Your task to perform on an android device: star an email in the gmail app Image 0: 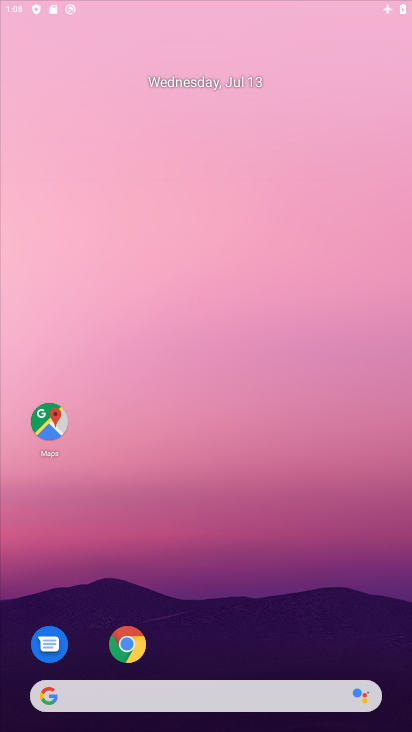
Step 0: press home button
Your task to perform on an android device: star an email in the gmail app Image 1: 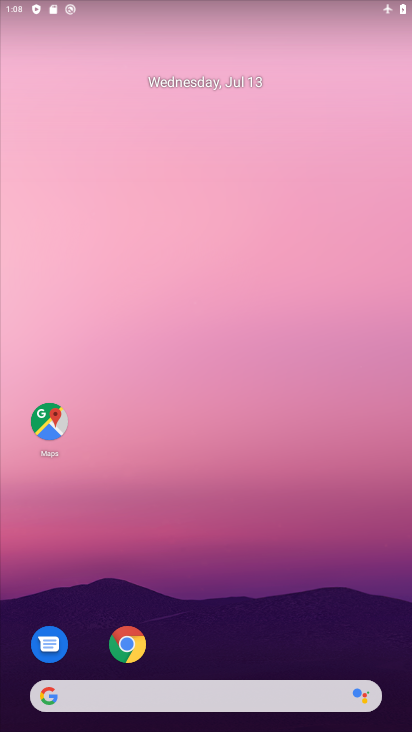
Step 1: press home button
Your task to perform on an android device: star an email in the gmail app Image 2: 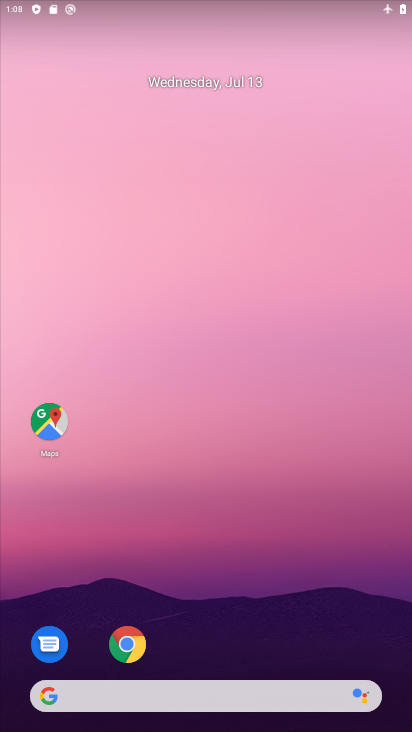
Step 2: drag from (296, 593) to (236, 17)
Your task to perform on an android device: star an email in the gmail app Image 3: 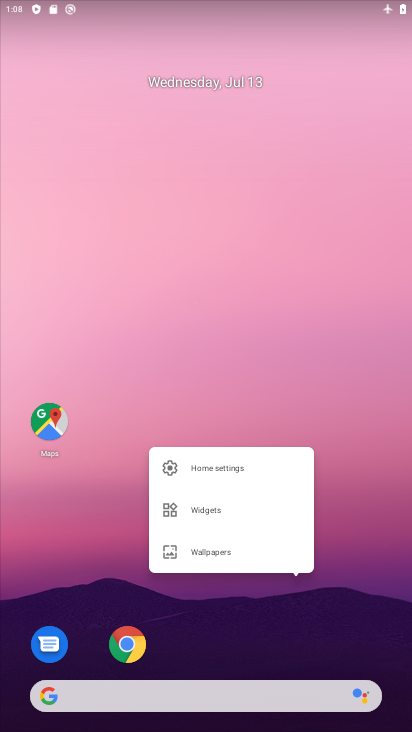
Step 3: drag from (94, 557) to (151, 16)
Your task to perform on an android device: star an email in the gmail app Image 4: 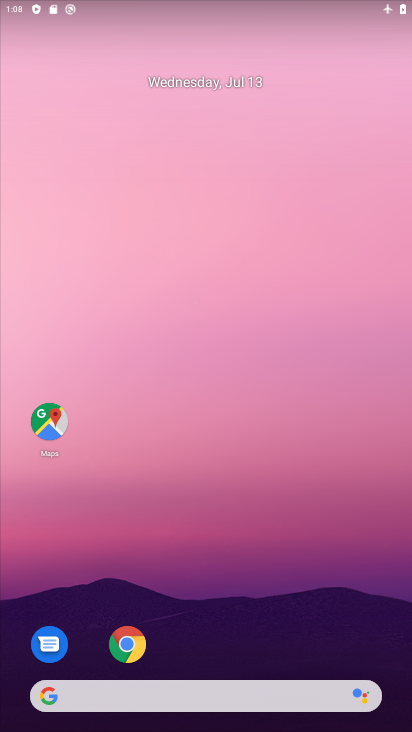
Step 4: drag from (258, 501) to (205, 9)
Your task to perform on an android device: star an email in the gmail app Image 5: 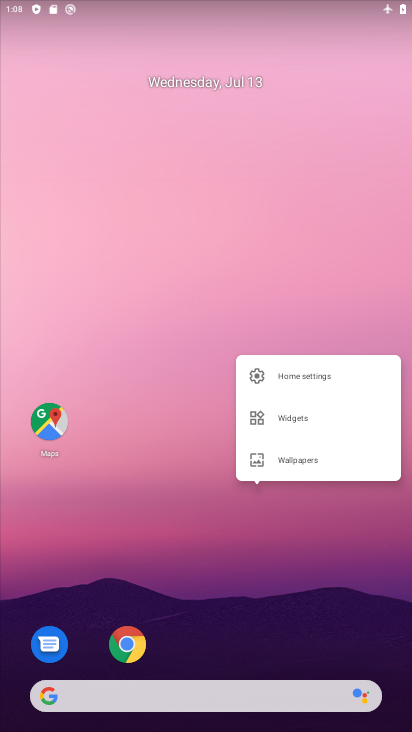
Step 5: drag from (196, 537) to (168, 26)
Your task to perform on an android device: star an email in the gmail app Image 6: 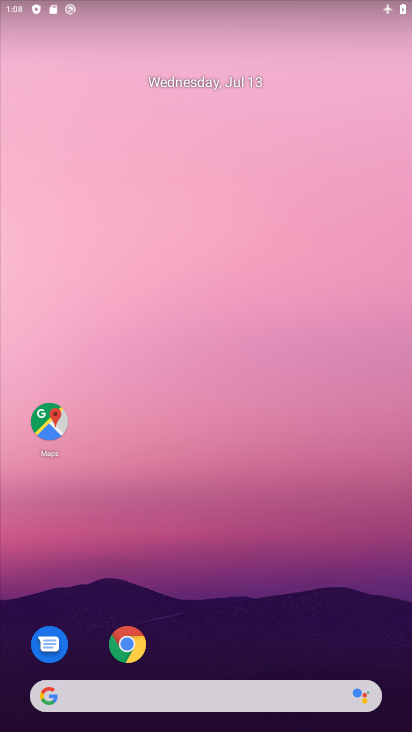
Step 6: drag from (218, 639) to (192, 2)
Your task to perform on an android device: star an email in the gmail app Image 7: 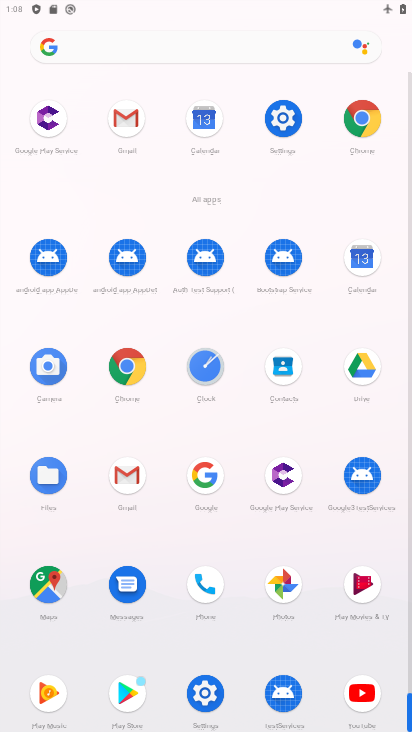
Step 7: drag from (205, 368) to (390, 335)
Your task to perform on an android device: star an email in the gmail app Image 8: 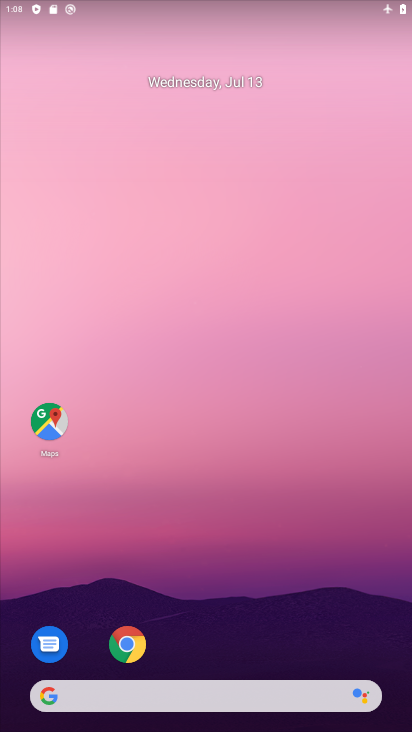
Step 8: click (126, 115)
Your task to perform on an android device: star an email in the gmail app Image 9: 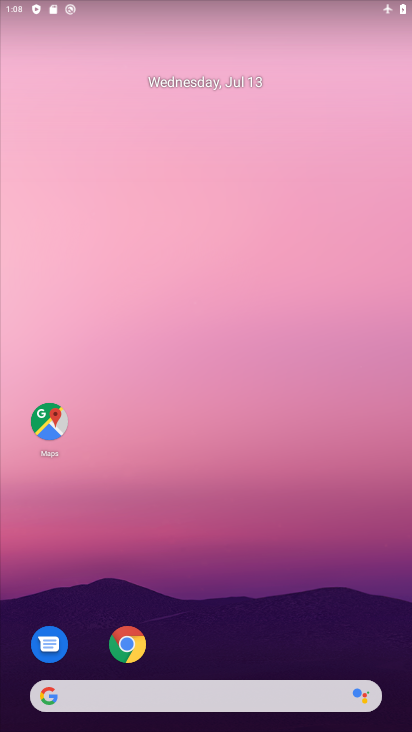
Step 9: drag from (215, 571) to (212, 0)
Your task to perform on an android device: star an email in the gmail app Image 10: 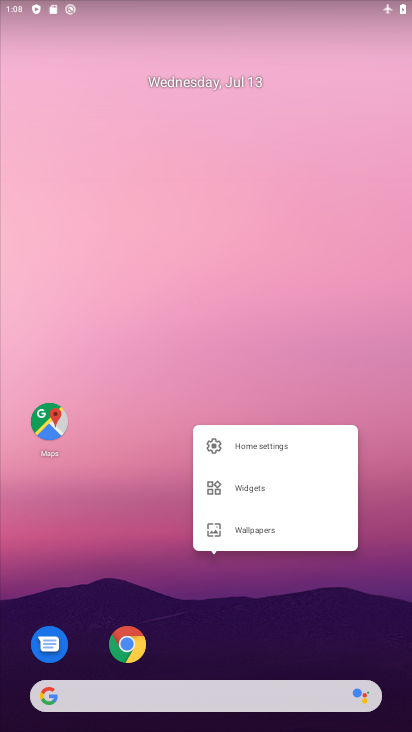
Step 10: drag from (161, 572) to (167, 16)
Your task to perform on an android device: star an email in the gmail app Image 11: 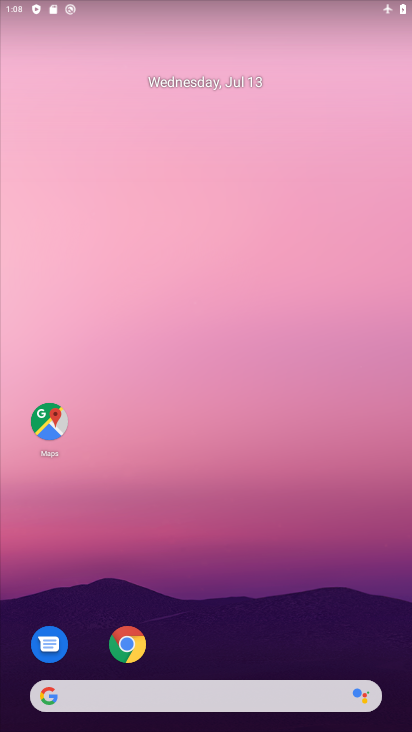
Step 11: drag from (237, 643) to (285, 68)
Your task to perform on an android device: star an email in the gmail app Image 12: 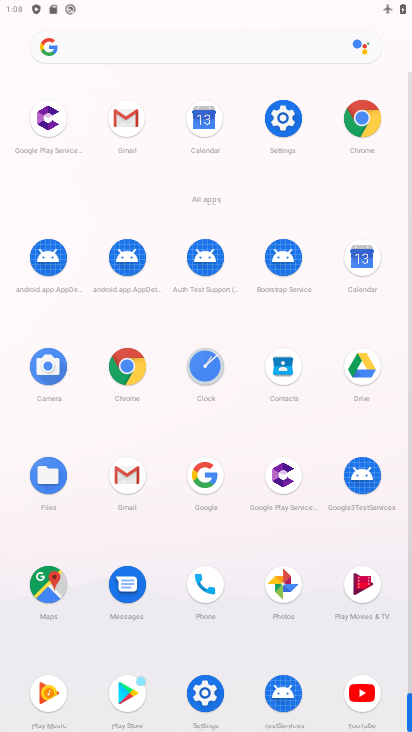
Step 12: click (129, 121)
Your task to perform on an android device: star an email in the gmail app Image 13: 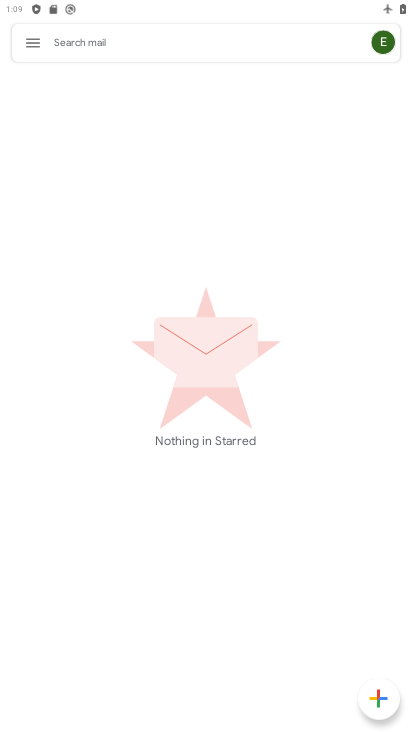
Step 13: click (34, 46)
Your task to perform on an android device: star an email in the gmail app Image 14: 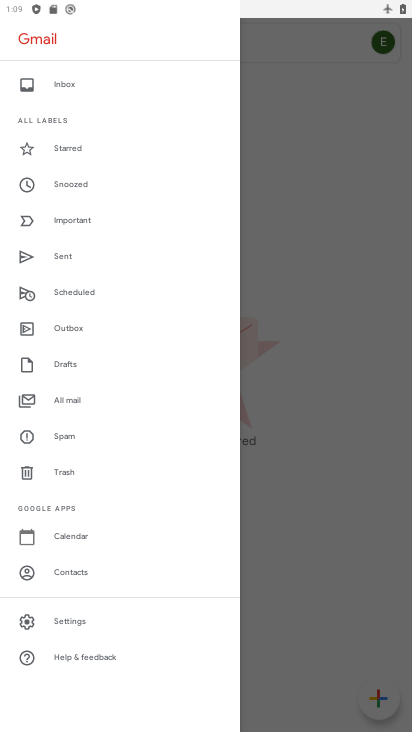
Step 14: click (80, 152)
Your task to perform on an android device: star an email in the gmail app Image 15: 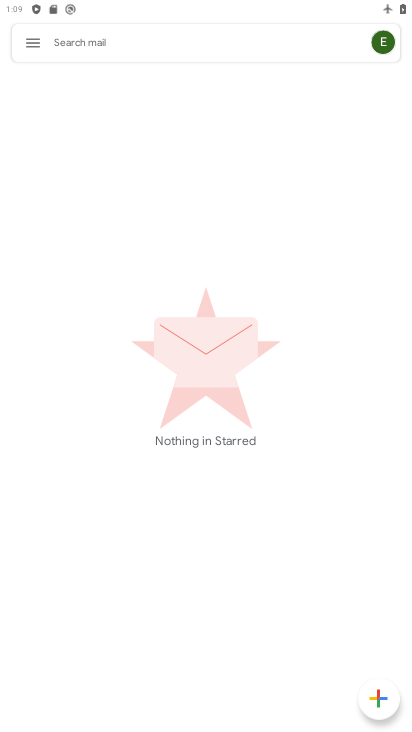
Step 15: task complete